Your task to perform on an android device: change notification settings in the gmail app Image 0: 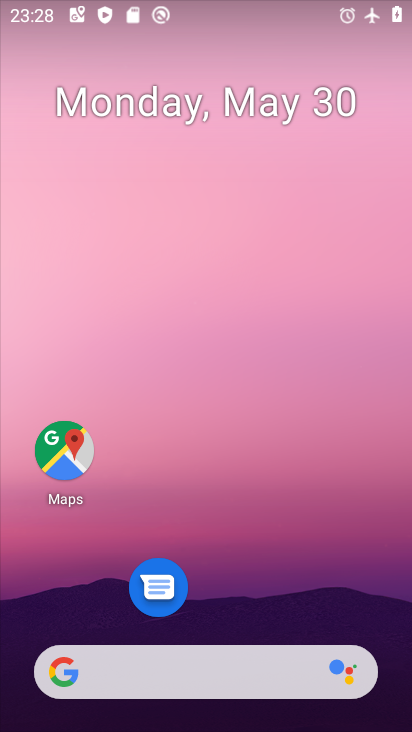
Step 0: drag from (205, 633) to (217, 96)
Your task to perform on an android device: change notification settings in the gmail app Image 1: 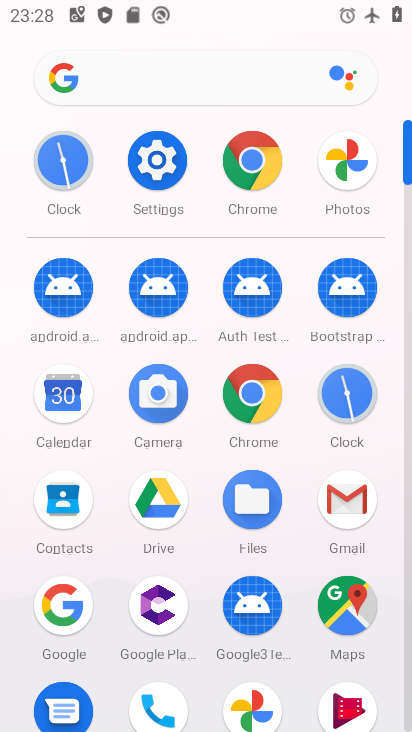
Step 1: click (341, 521)
Your task to perform on an android device: change notification settings in the gmail app Image 2: 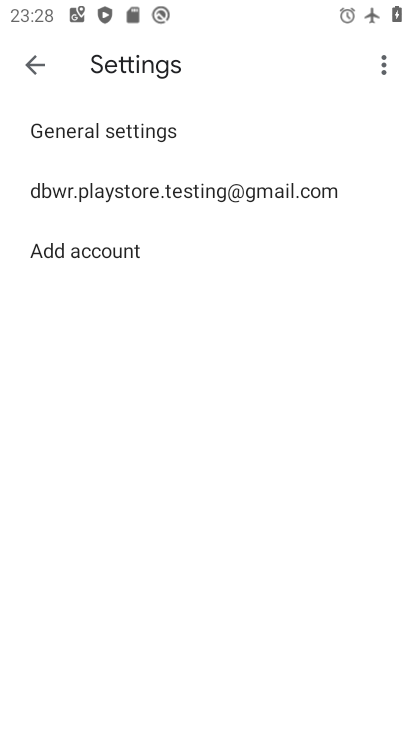
Step 2: click (54, 119)
Your task to perform on an android device: change notification settings in the gmail app Image 3: 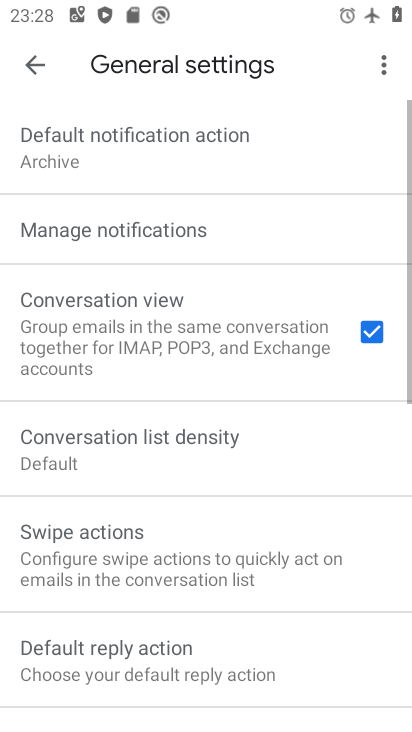
Step 3: click (99, 229)
Your task to perform on an android device: change notification settings in the gmail app Image 4: 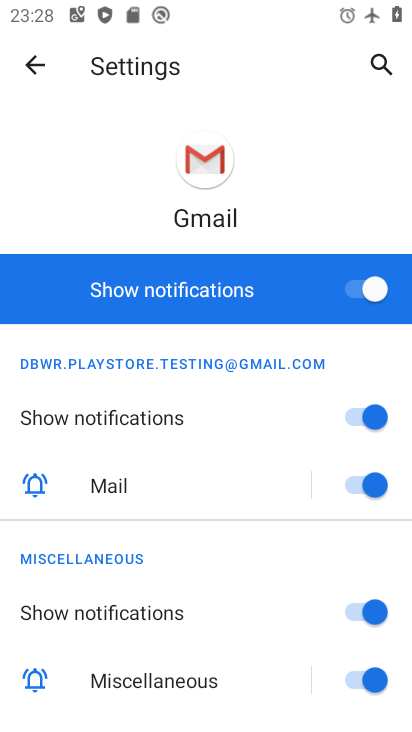
Step 4: click (352, 292)
Your task to perform on an android device: change notification settings in the gmail app Image 5: 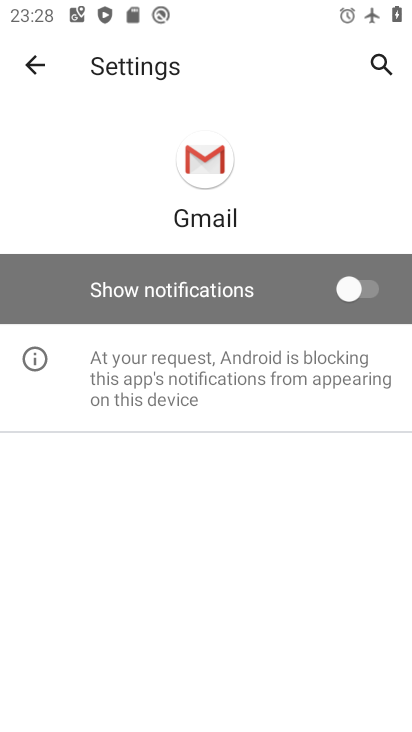
Step 5: task complete